Your task to perform on an android device: turn on translation in the chrome app Image 0: 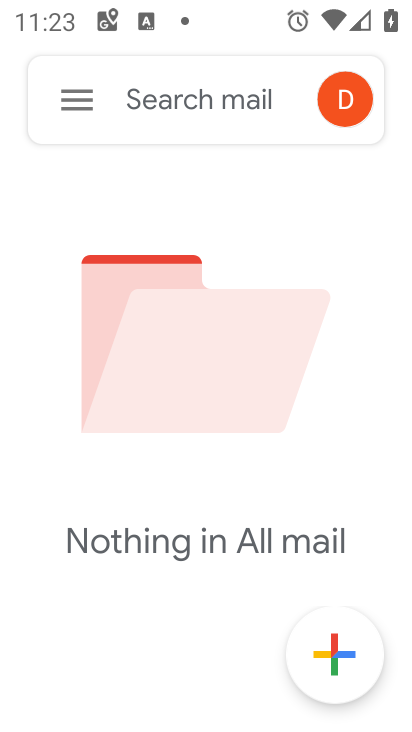
Step 0: press home button
Your task to perform on an android device: turn on translation in the chrome app Image 1: 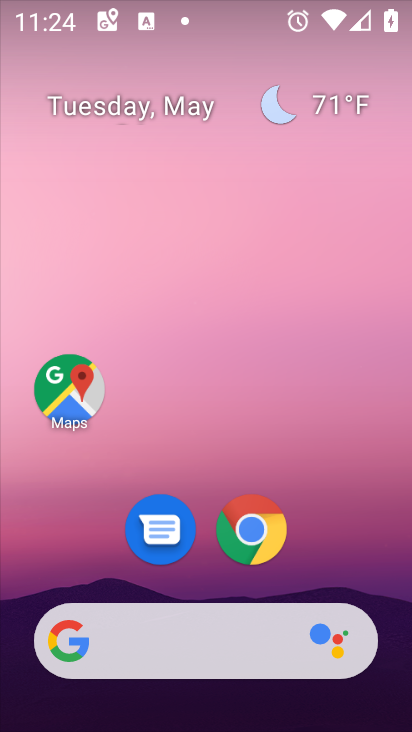
Step 1: click (233, 538)
Your task to perform on an android device: turn on translation in the chrome app Image 2: 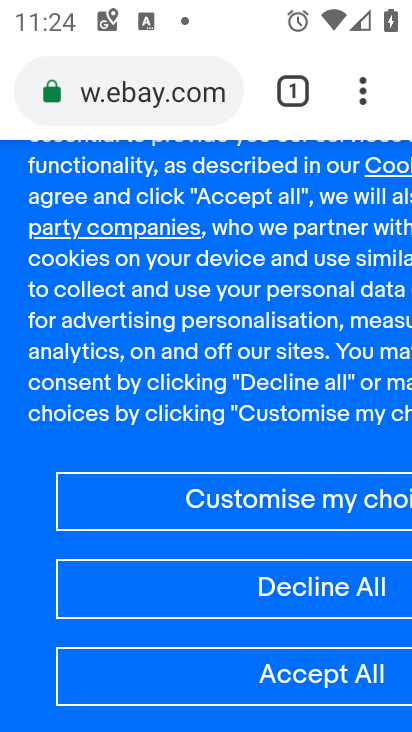
Step 2: click (360, 102)
Your task to perform on an android device: turn on translation in the chrome app Image 3: 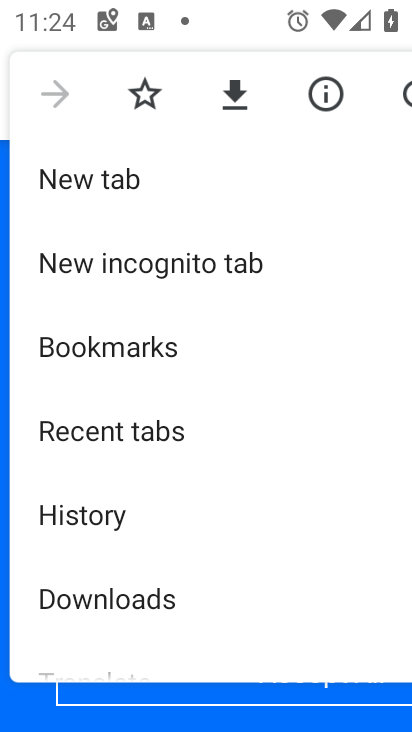
Step 3: drag from (179, 559) to (230, 315)
Your task to perform on an android device: turn on translation in the chrome app Image 4: 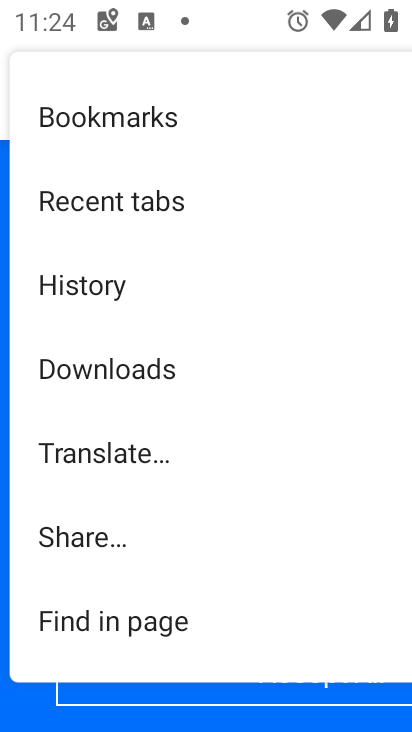
Step 4: click (152, 455)
Your task to perform on an android device: turn on translation in the chrome app Image 5: 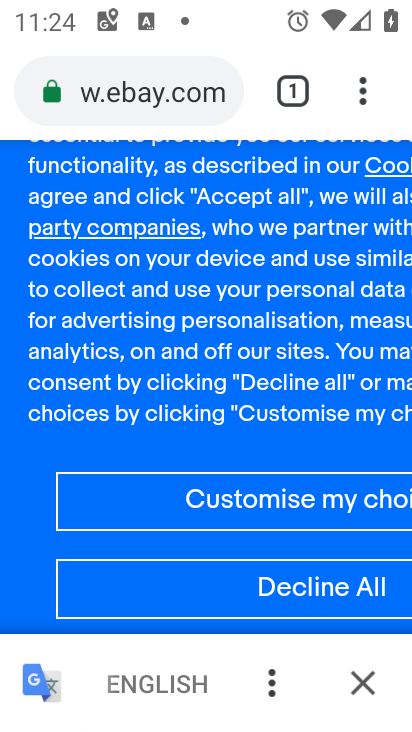
Step 5: click (266, 687)
Your task to perform on an android device: turn on translation in the chrome app Image 6: 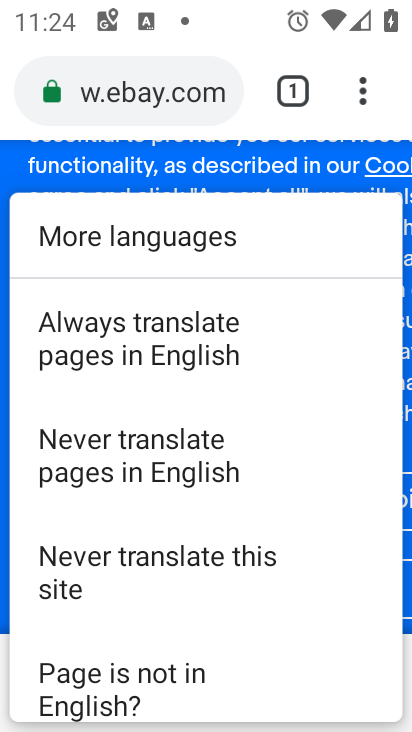
Step 6: click (203, 341)
Your task to perform on an android device: turn on translation in the chrome app Image 7: 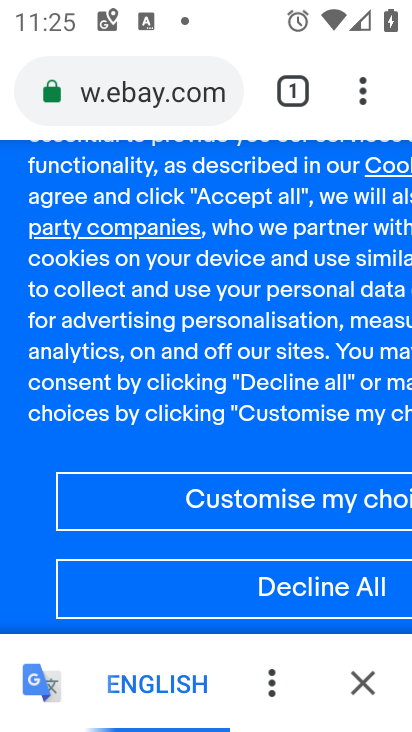
Step 7: task complete